Your task to perform on an android device: Go to CNN.com Image 0: 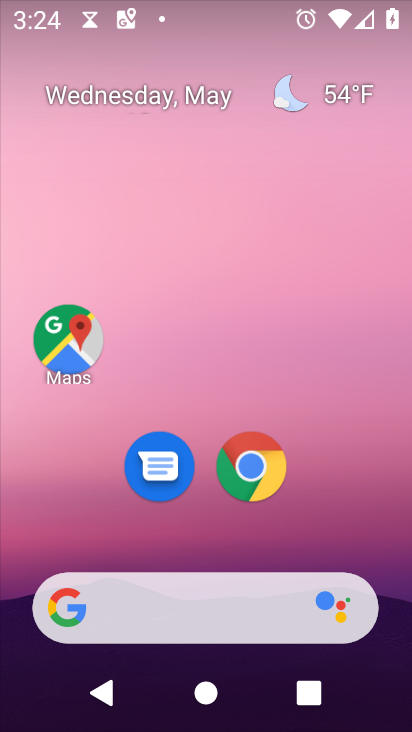
Step 0: click (257, 454)
Your task to perform on an android device: Go to CNN.com Image 1: 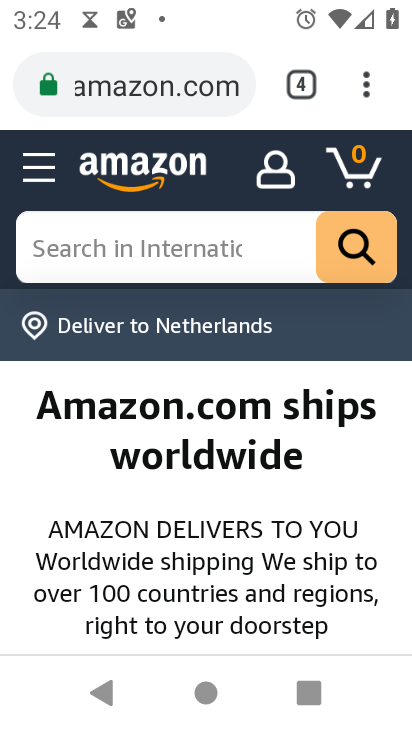
Step 1: click (203, 98)
Your task to perform on an android device: Go to CNN.com Image 2: 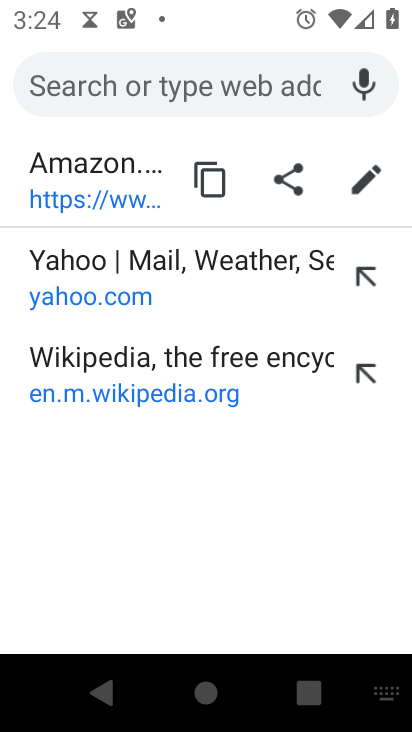
Step 2: type "cnn.com"
Your task to perform on an android device: Go to CNN.com Image 3: 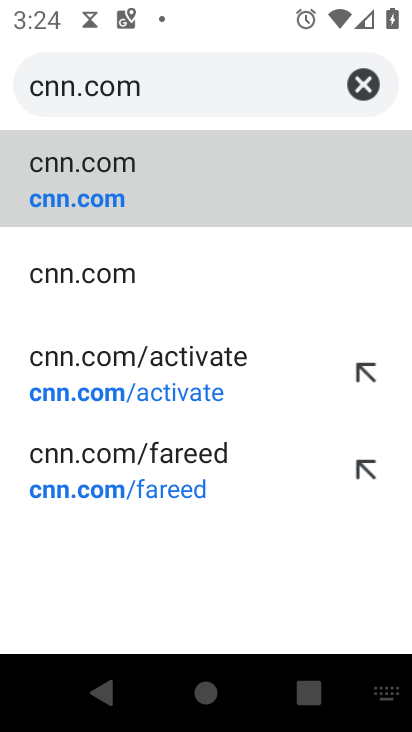
Step 3: click (109, 202)
Your task to perform on an android device: Go to CNN.com Image 4: 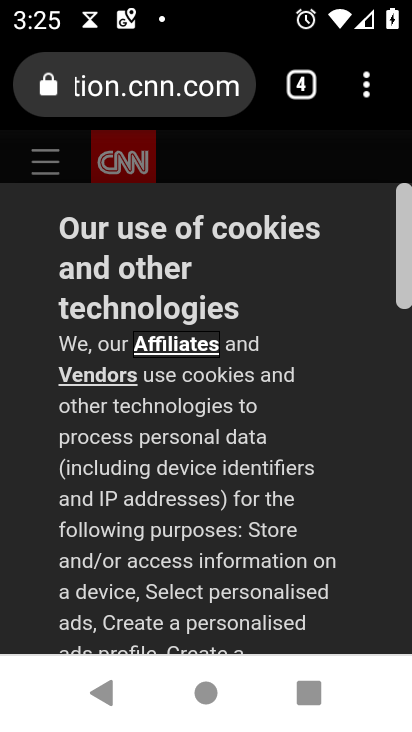
Step 4: task complete